Your task to perform on an android device: turn on priority inbox in the gmail app Image 0: 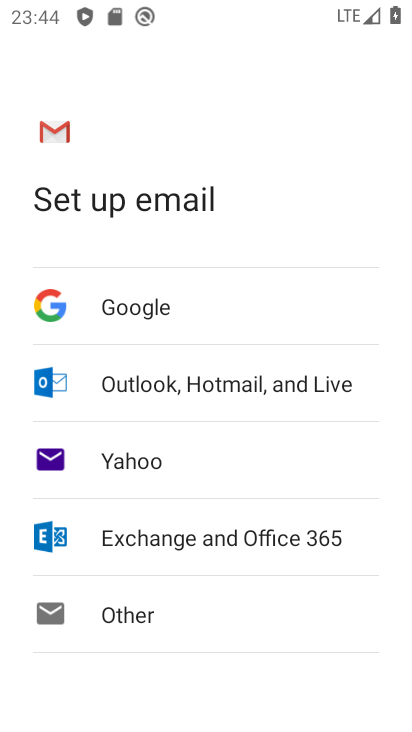
Step 0: press home button
Your task to perform on an android device: turn on priority inbox in the gmail app Image 1: 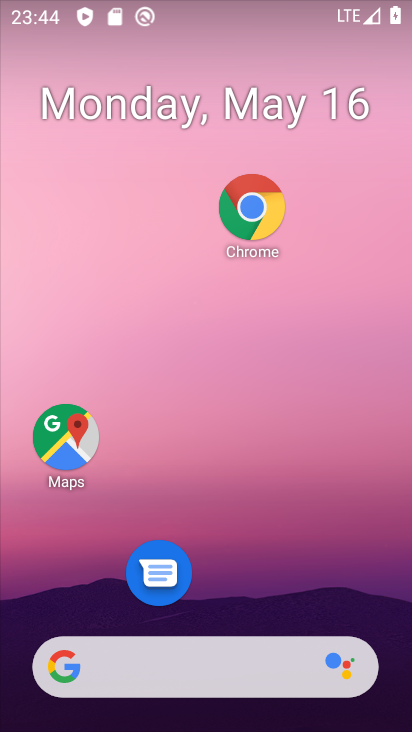
Step 1: drag from (240, 664) to (295, 114)
Your task to perform on an android device: turn on priority inbox in the gmail app Image 2: 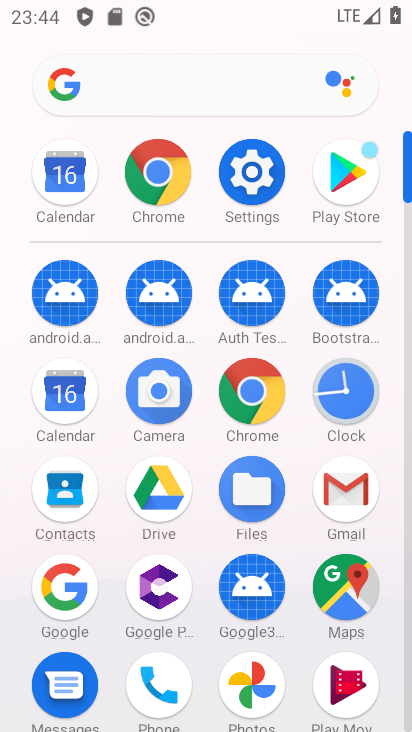
Step 2: click (344, 502)
Your task to perform on an android device: turn on priority inbox in the gmail app Image 3: 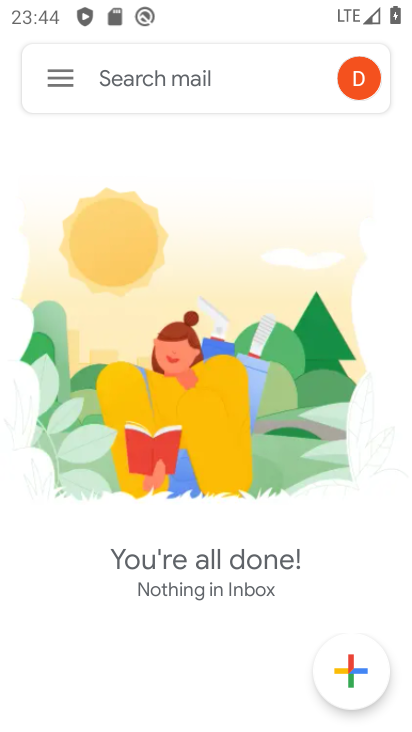
Step 3: click (65, 69)
Your task to perform on an android device: turn on priority inbox in the gmail app Image 4: 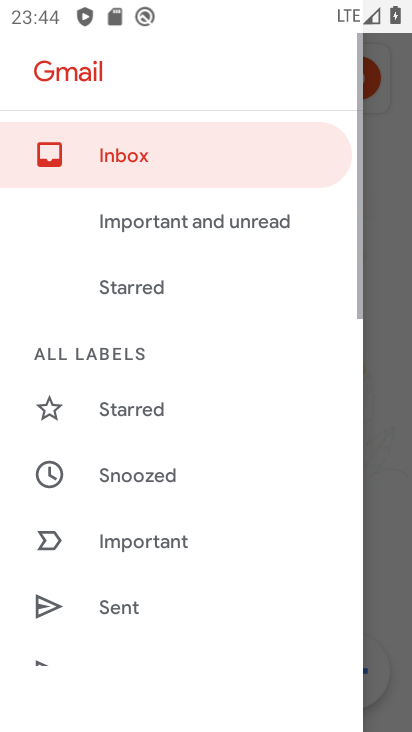
Step 4: drag from (244, 659) to (238, 93)
Your task to perform on an android device: turn on priority inbox in the gmail app Image 5: 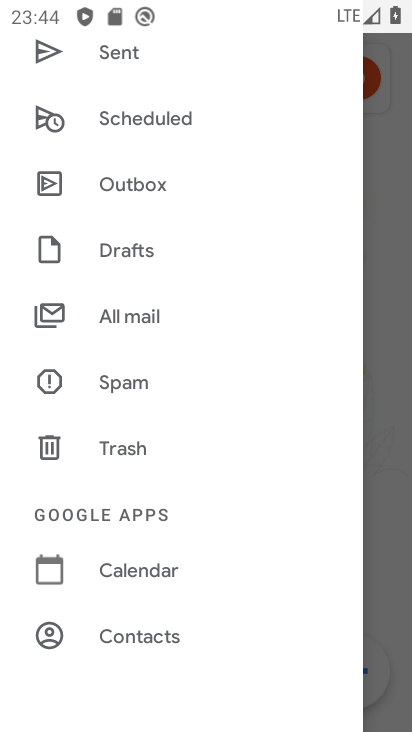
Step 5: drag from (196, 606) to (199, 211)
Your task to perform on an android device: turn on priority inbox in the gmail app Image 6: 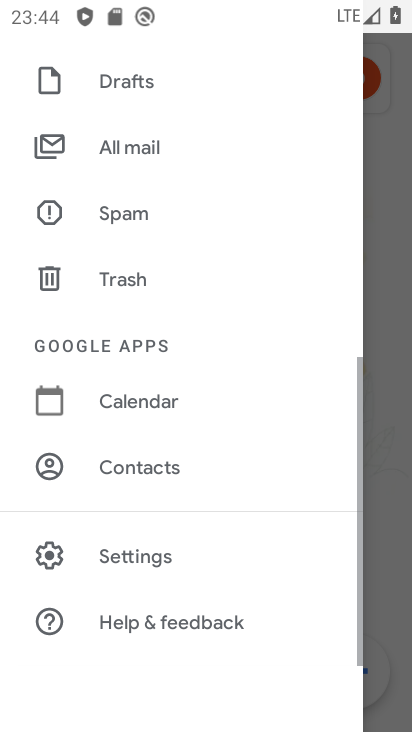
Step 6: click (177, 560)
Your task to perform on an android device: turn on priority inbox in the gmail app Image 7: 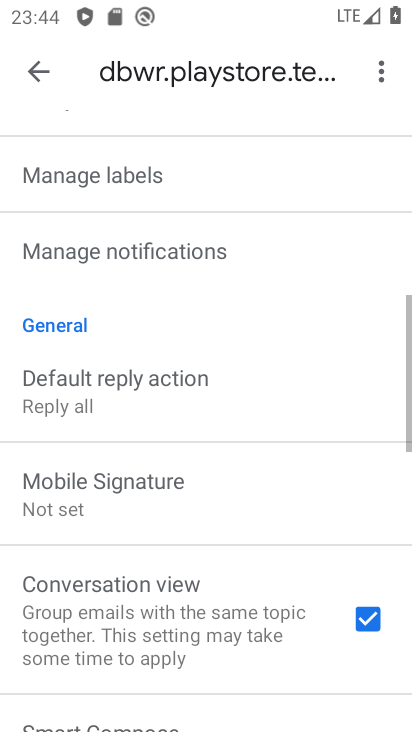
Step 7: drag from (181, 253) to (268, 728)
Your task to perform on an android device: turn on priority inbox in the gmail app Image 8: 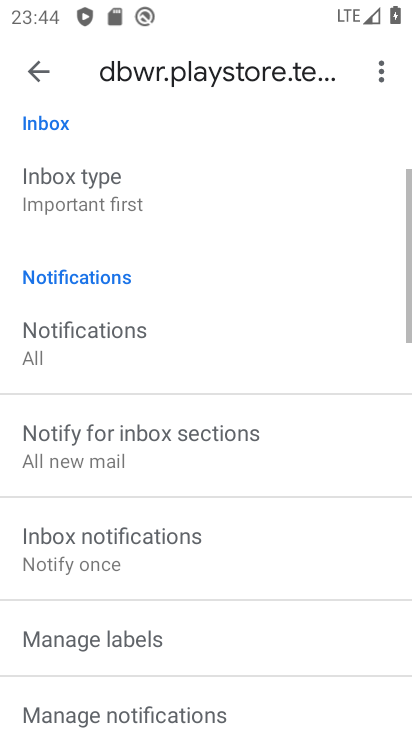
Step 8: drag from (275, 236) to (237, 719)
Your task to perform on an android device: turn on priority inbox in the gmail app Image 9: 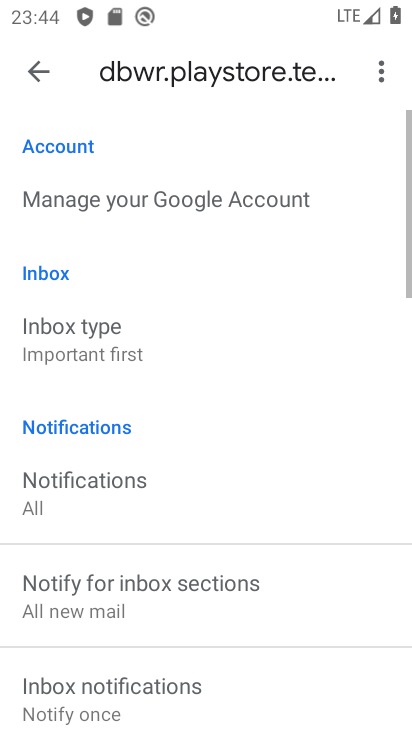
Step 9: click (122, 348)
Your task to perform on an android device: turn on priority inbox in the gmail app Image 10: 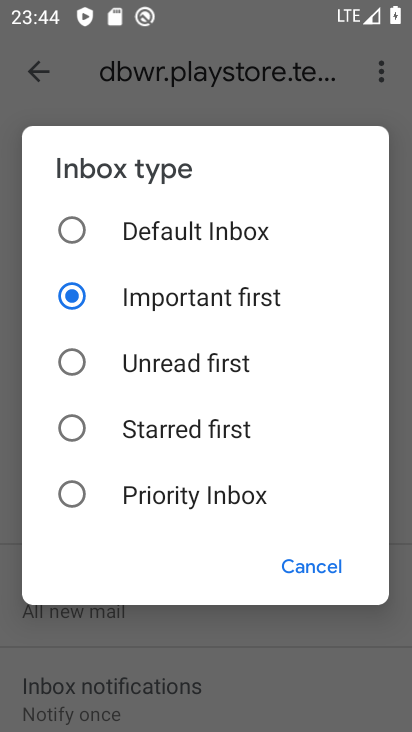
Step 10: click (81, 490)
Your task to perform on an android device: turn on priority inbox in the gmail app Image 11: 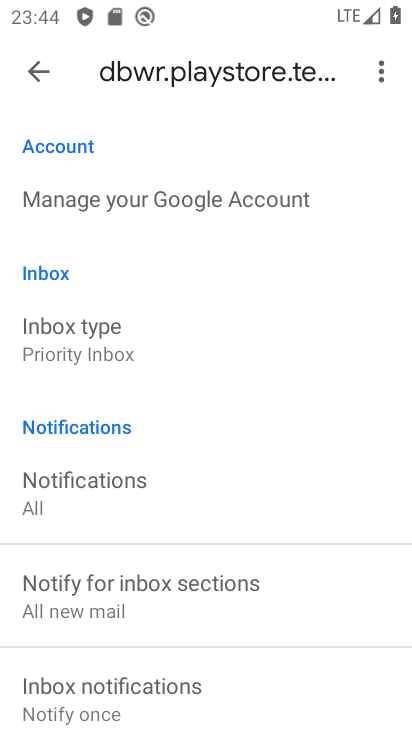
Step 11: task complete